Your task to perform on an android device: toggle sleep mode Image 0: 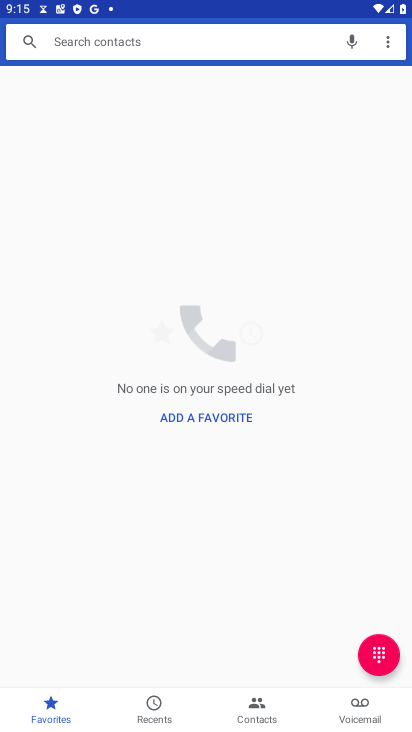
Step 0: press back button
Your task to perform on an android device: toggle sleep mode Image 1: 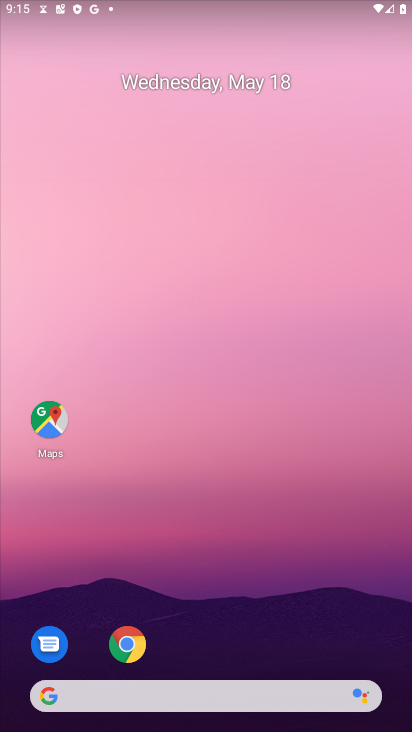
Step 1: drag from (235, 593) to (201, 111)
Your task to perform on an android device: toggle sleep mode Image 2: 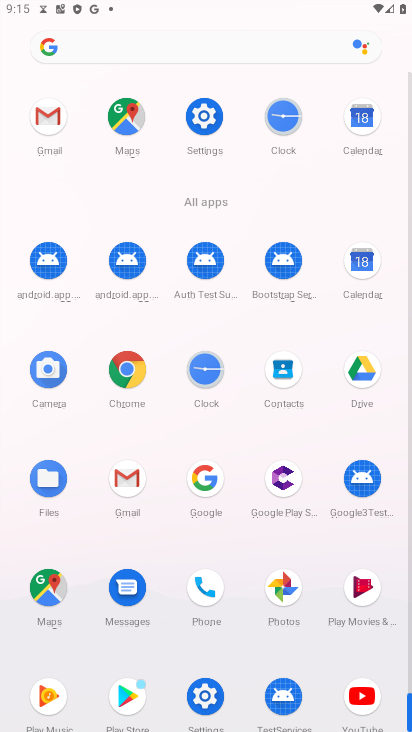
Step 2: click (205, 694)
Your task to perform on an android device: toggle sleep mode Image 3: 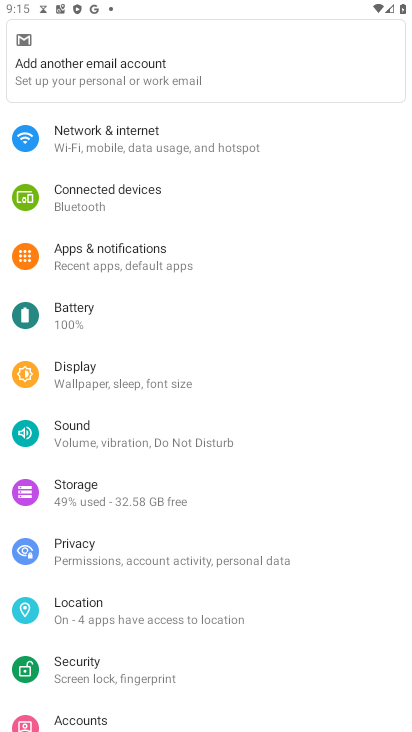
Step 3: drag from (153, 414) to (158, 332)
Your task to perform on an android device: toggle sleep mode Image 4: 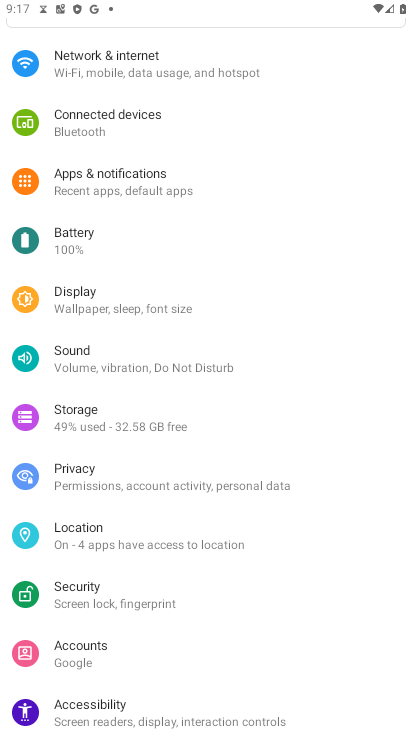
Step 4: click (103, 356)
Your task to perform on an android device: toggle sleep mode Image 5: 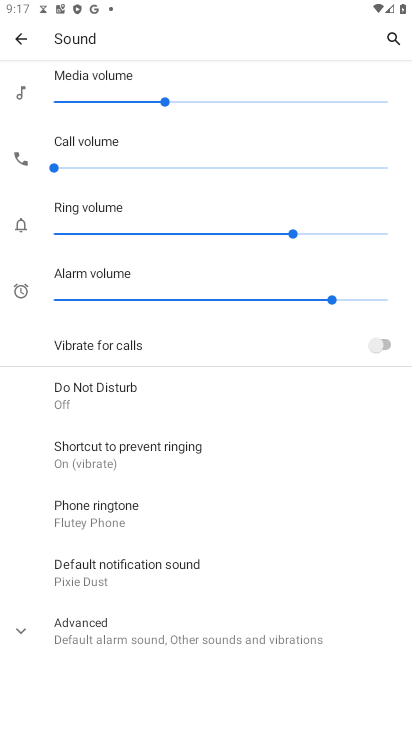
Step 5: press back button
Your task to perform on an android device: toggle sleep mode Image 6: 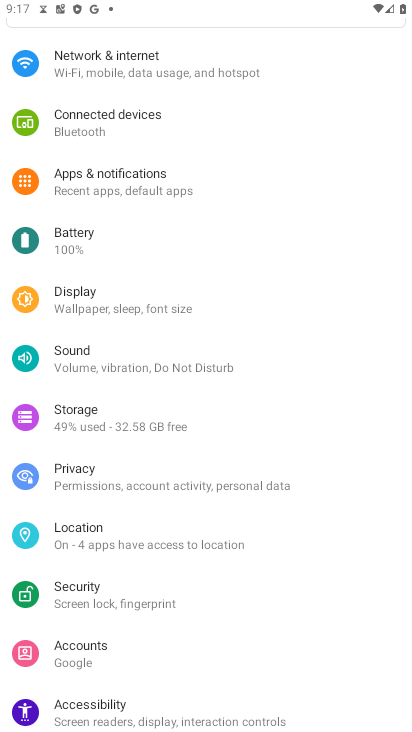
Step 6: click (118, 302)
Your task to perform on an android device: toggle sleep mode Image 7: 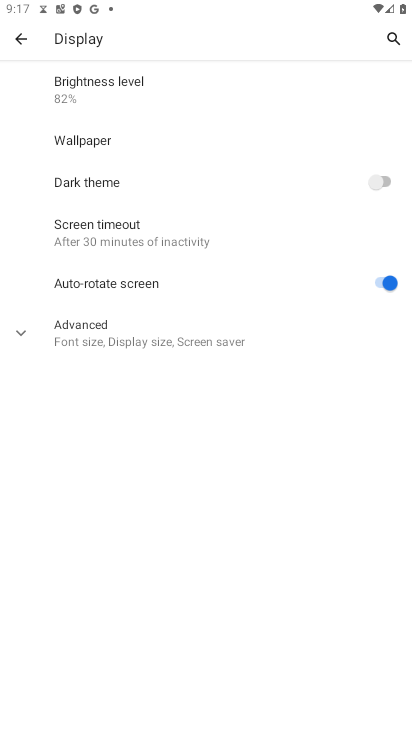
Step 7: task complete